Your task to perform on an android device: Open accessibility settings Image 0: 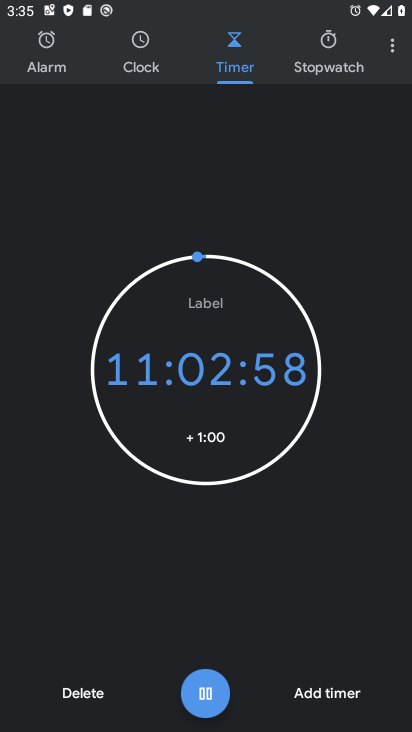
Step 0: press home button
Your task to perform on an android device: Open accessibility settings Image 1: 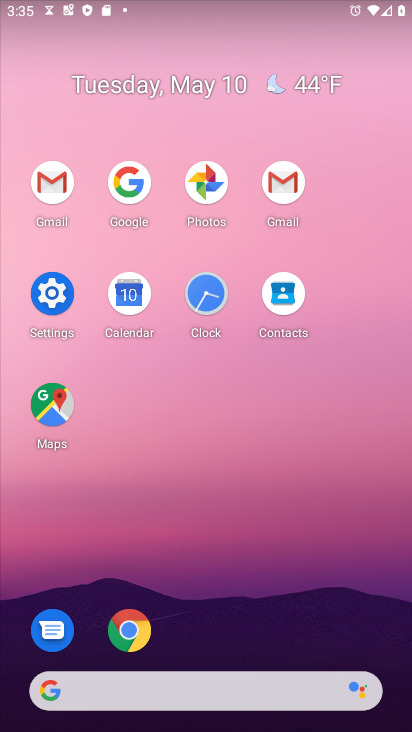
Step 1: click (67, 292)
Your task to perform on an android device: Open accessibility settings Image 2: 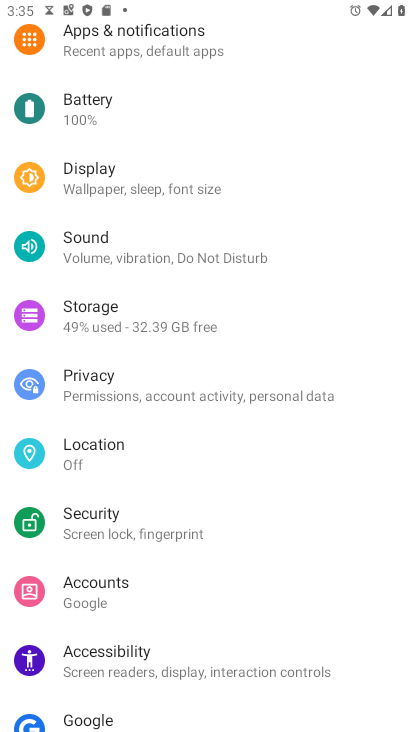
Step 2: click (277, 660)
Your task to perform on an android device: Open accessibility settings Image 3: 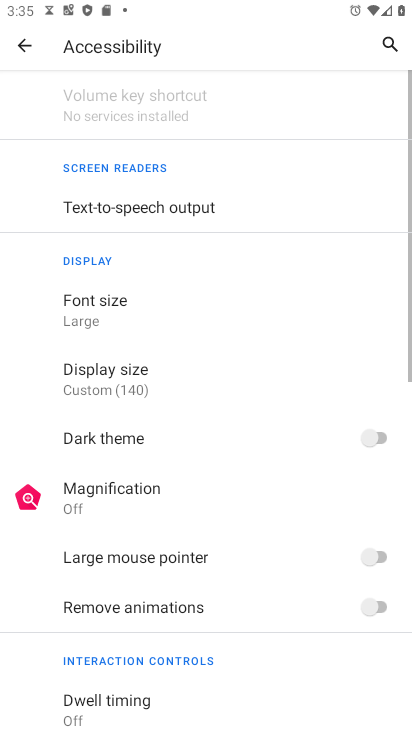
Step 3: task complete